Your task to perform on an android device: open sync settings in chrome Image 0: 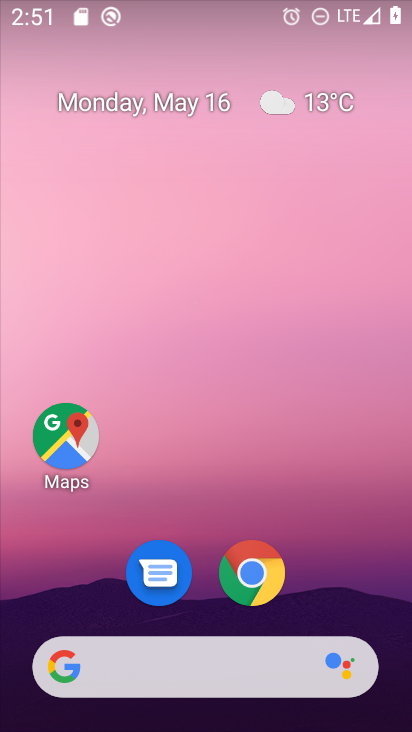
Step 0: click (249, 605)
Your task to perform on an android device: open sync settings in chrome Image 1: 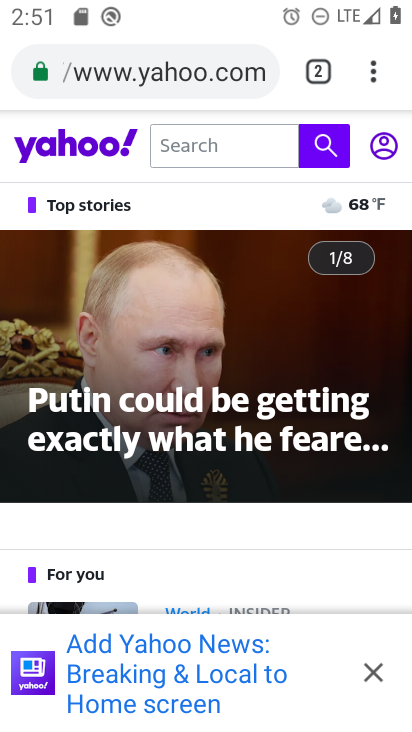
Step 1: click (371, 71)
Your task to perform on an android device: open sync settings in chrome Image 2: 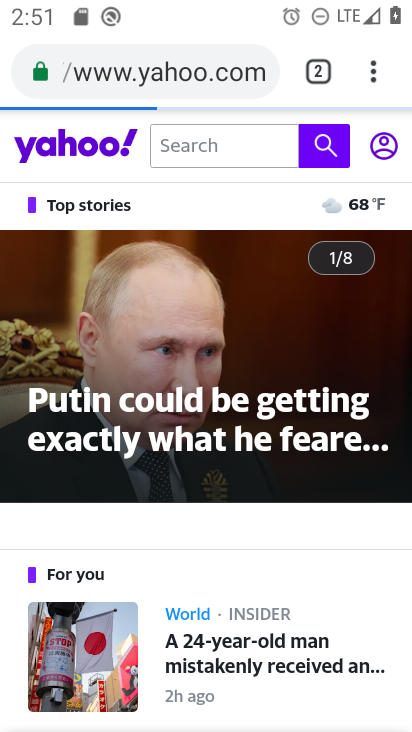
Step 2: drag from (383, 71) to (95, 565)
Your task to perform on an android device: open sync settings in chrome Image 3: 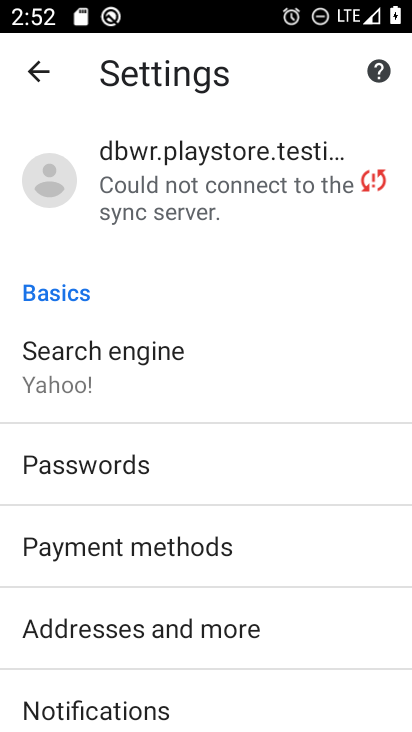
Step 3: click (167, 216)
Your task to perform on an android device: open sync settings in chrome Image 4: 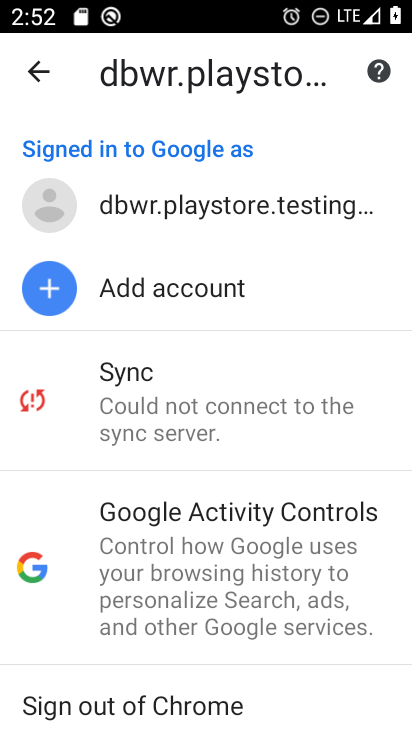
Step 4: click (181, 446)
Your task to perform on an android device: open sync settings in chrome Image 5: 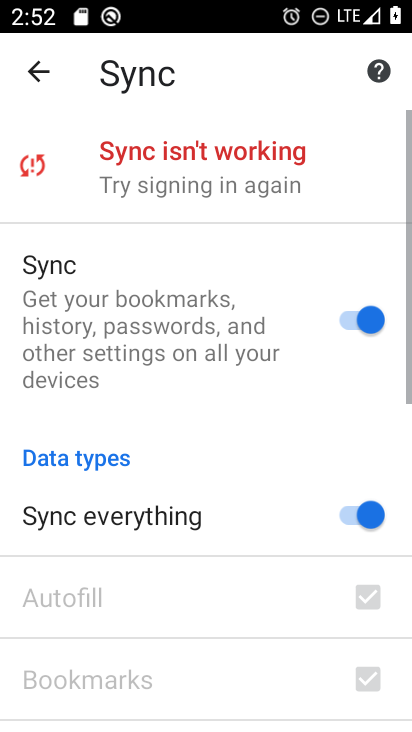
Step 5: task complete